Your task to perform on an android device: turn on the 24-hour format for clock Image 0: 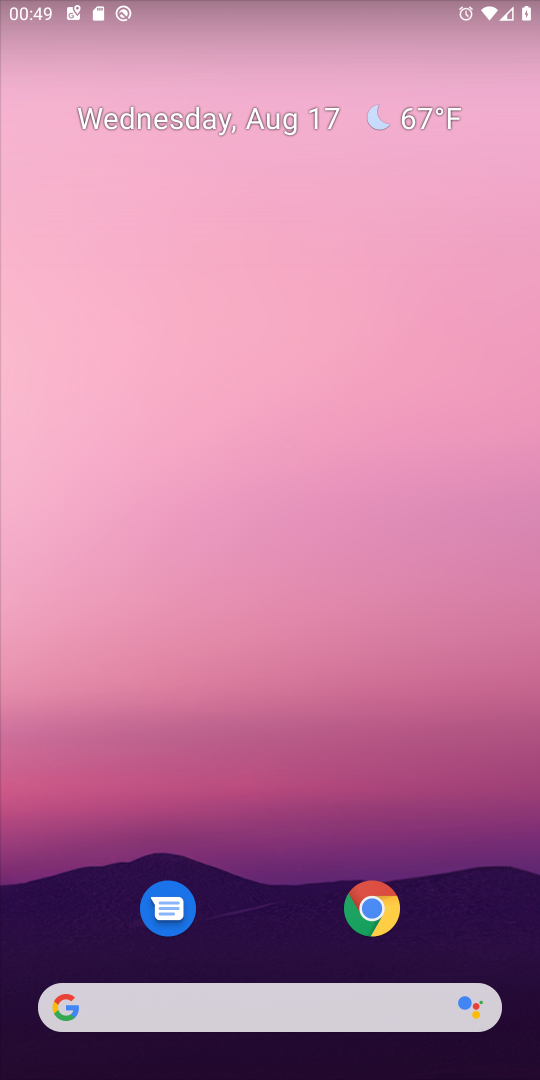
Step 0: drag from (259, 872) to (324, 243)
Your task to perform on an android device: turn on the 24-hour format for clock Image 1: 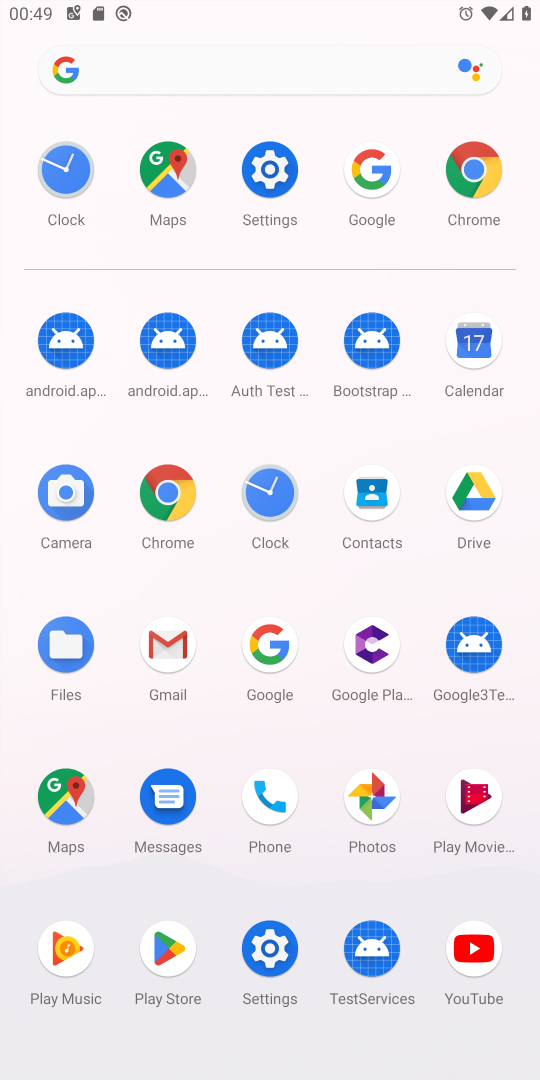
Step 1: click (259, 478)
Your task to perform on an android device: turn on the 24-hour format for clock Image 2: 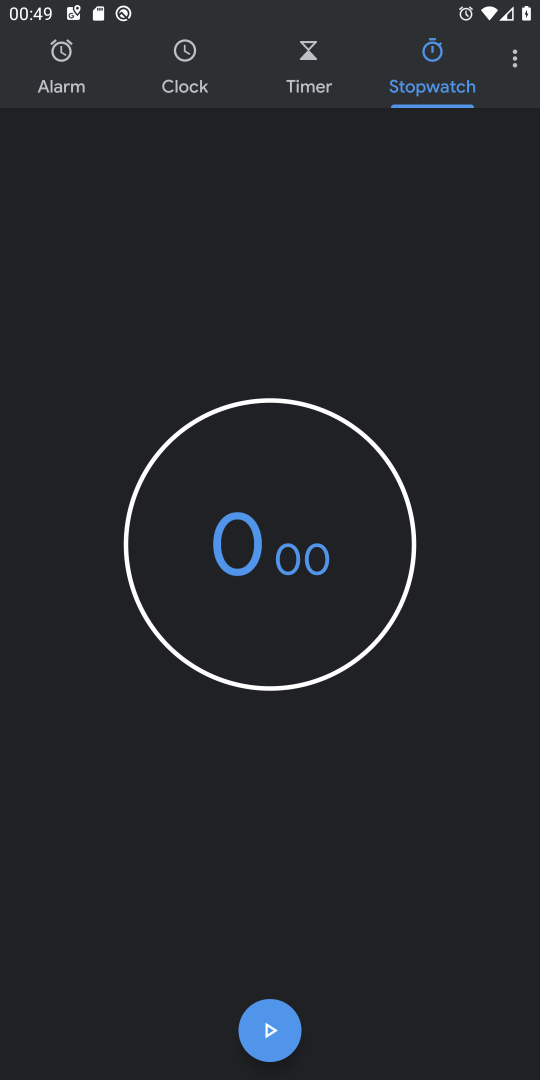
Step 2: click (513, 62)
Your task to perform on an android device: turn on the 24-hour format for clock Image 3: 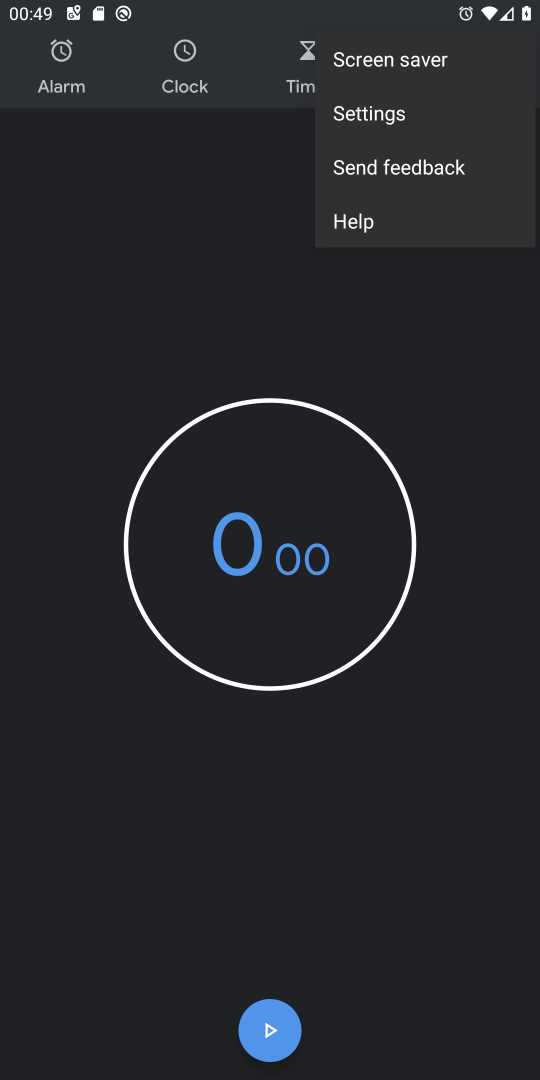
Step 3: click (376, 132)
Your task to perform on an android device: turn on the 24-hour format for clock Image 4: 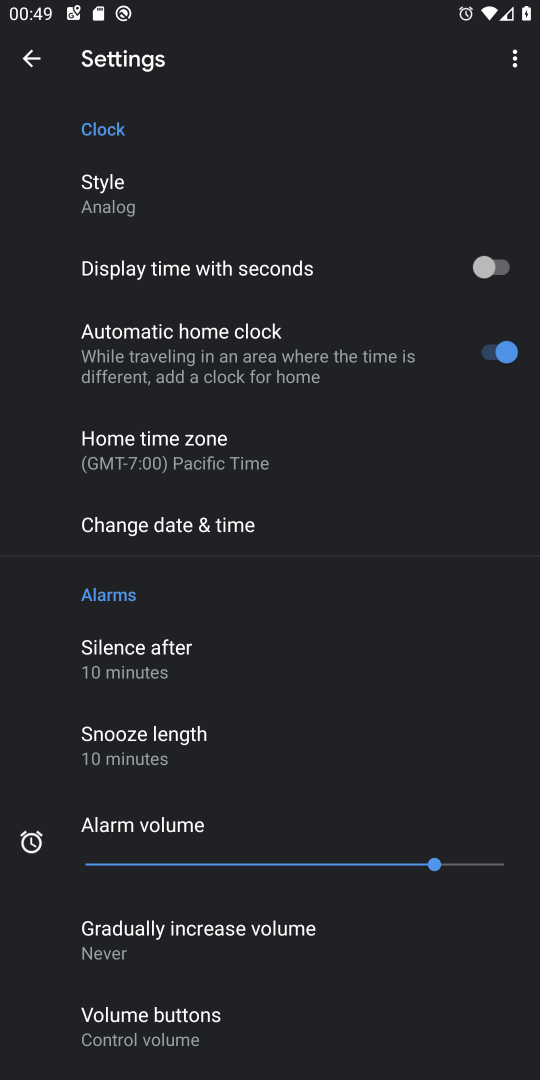
Step 4: click (243, 536)
Your task to perform on an android device: turn on the 24-hour format for clock Image 5: 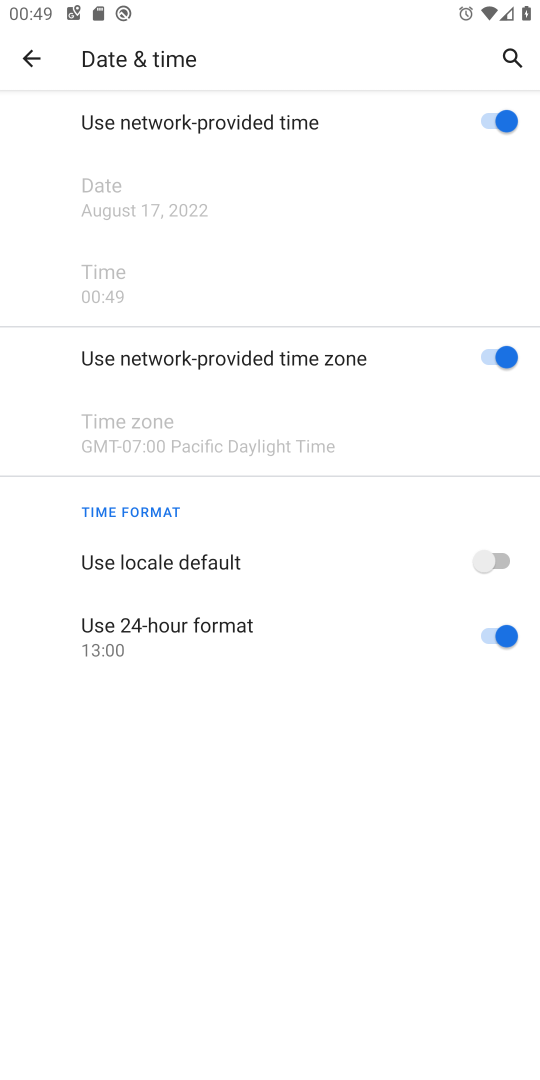
Step 5: task complete